Your task to perform on an android device: turn off notifications in google photos Image 0: 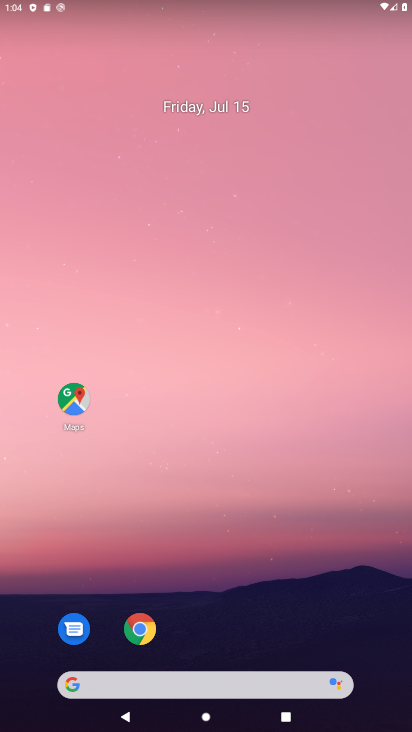
Step 0: drag from (218, 603) to (229, 127)
Your task to perform on an android device: turn off notifications in google photos Image 1: 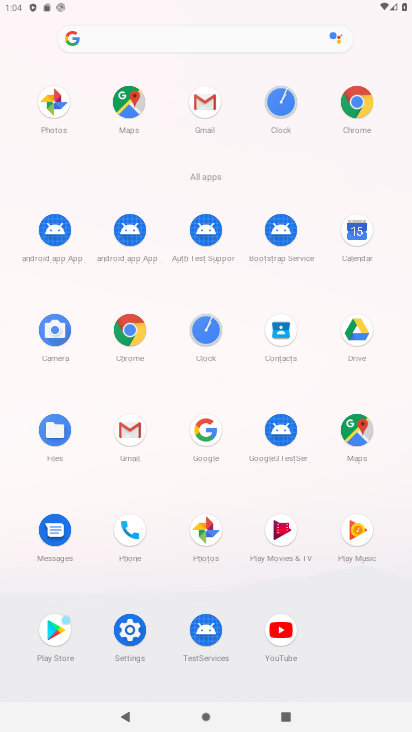
Step 1: click (201, 523)
Your task to perform on an android device: turn off notifications in google photos Image 2: 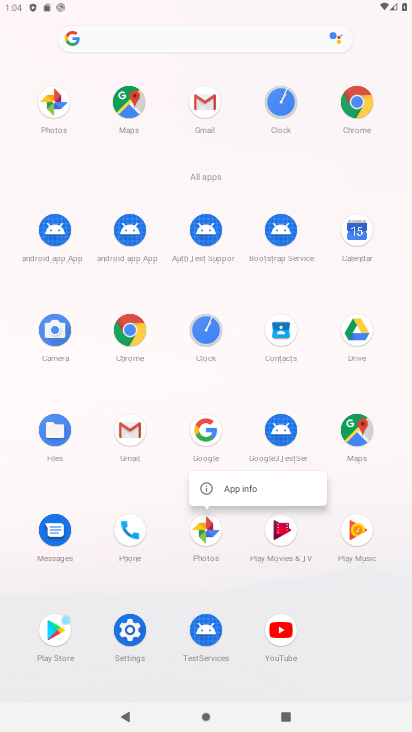
Step 2: click (210, 539)
Your task to perform on an android device: turn off notifications in google photos Image 3: 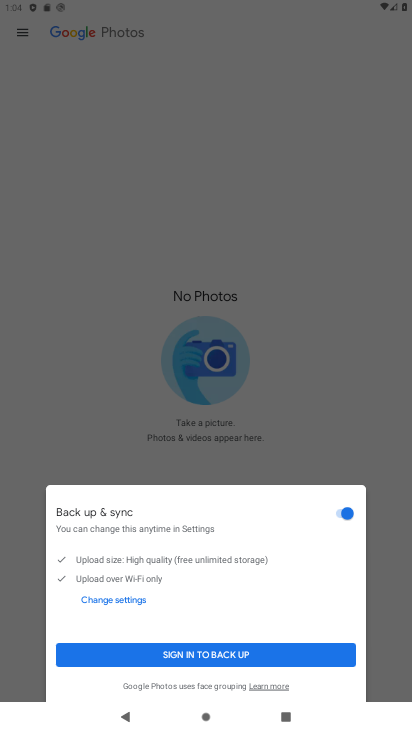
Step 3: click (205, 654)
Your task to perform on an android device: turn off notifications in google photos Image 4: 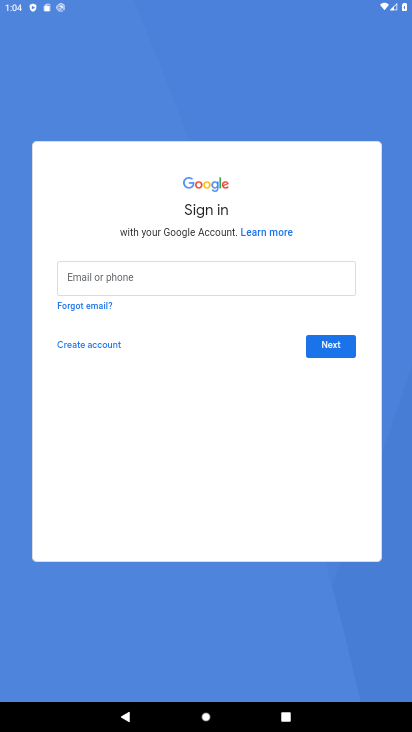
Step 4: click (316, 347)
Your task to perform on an android device: turn off notifications in google photos Image 5: 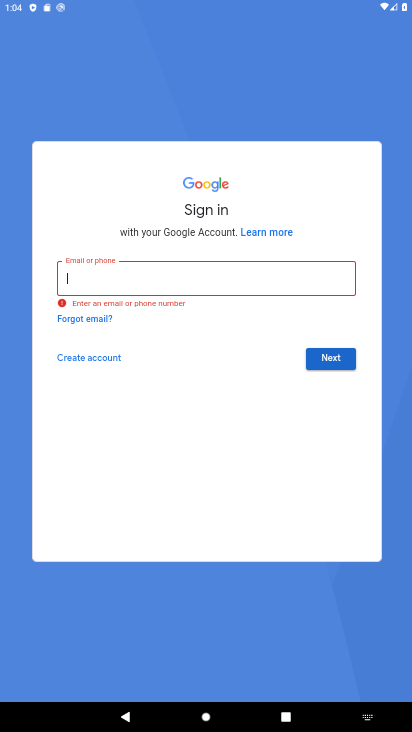
Step 5: press back button
Your task to perform on an android device: turn off notifications in google photos Image 6: 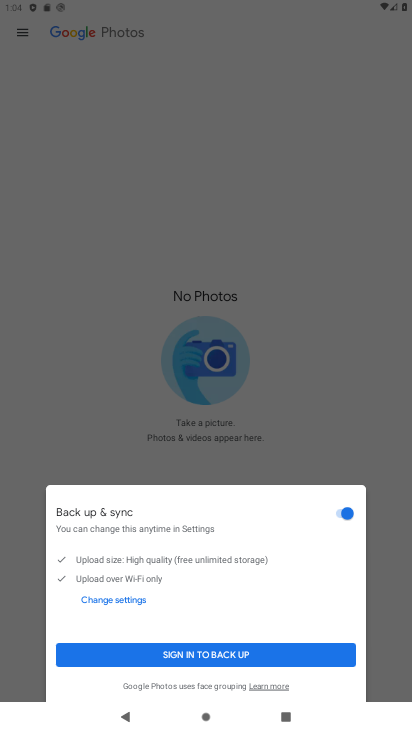
Step 6: click (330, 345)
Your task to perform on an android device: turn off notifications in google photos Image 7: 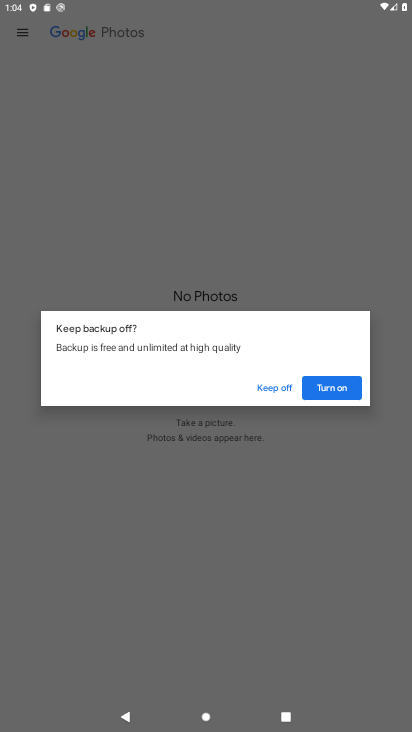
Step 7: click (266, 386)
Your task to perform on an android device: turn off notifications in google photos Image 8: 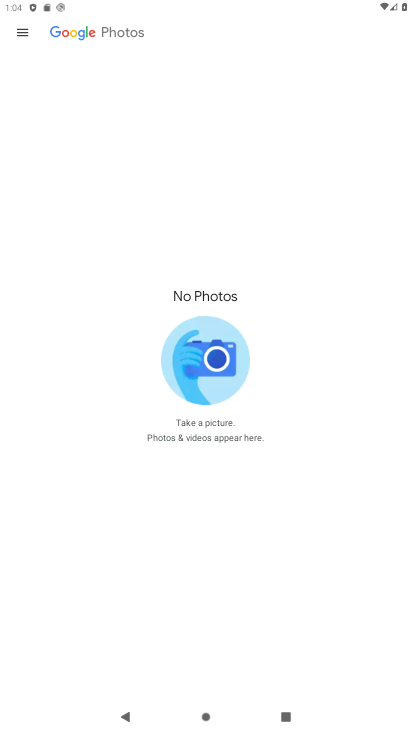
Step 8: click (19, 18)
Your task to perform on an android device: turn off notifications in google photos Image 9: 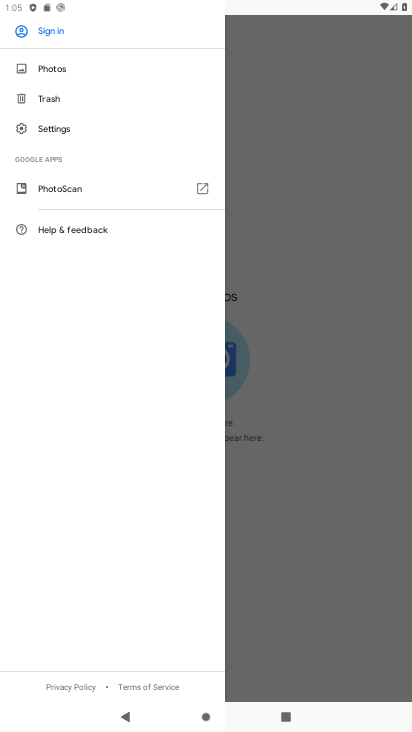
Step 9: click (51, 130)
Your task to perform on an android device: turn off notifications in google photos Image 10: 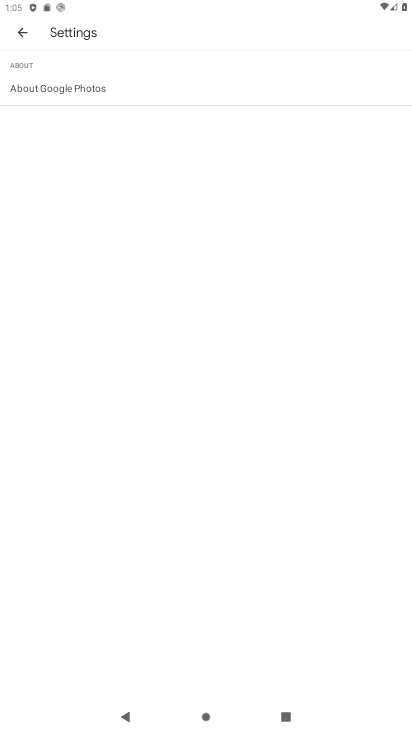
Step 10: click (27, 32)
Your task to perform on an android device: turn off notifications in google photos Image 11: 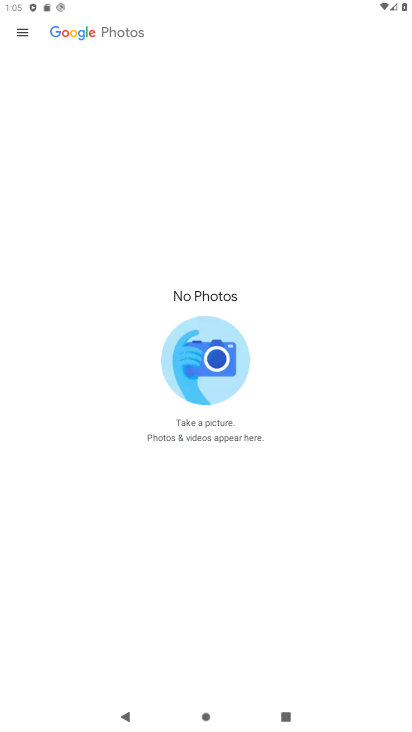
Step 11: click (14, 26)
Your task to perform on an android device: turn off notifications in google photos Image 12: 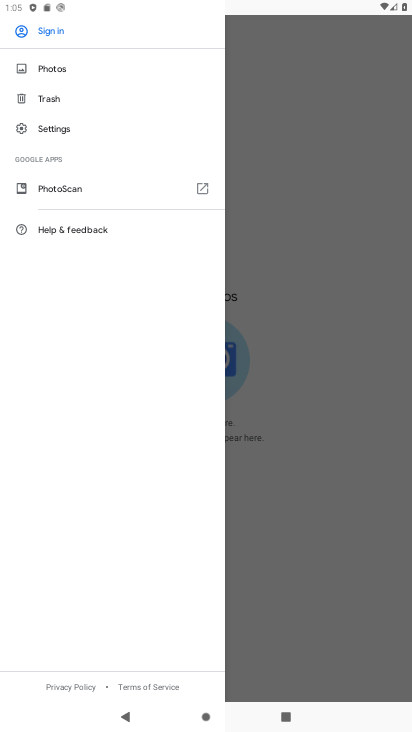
Step 12: click (63, 131)
Your task to perform on an android device: turn off notifications in google photos Image 13: 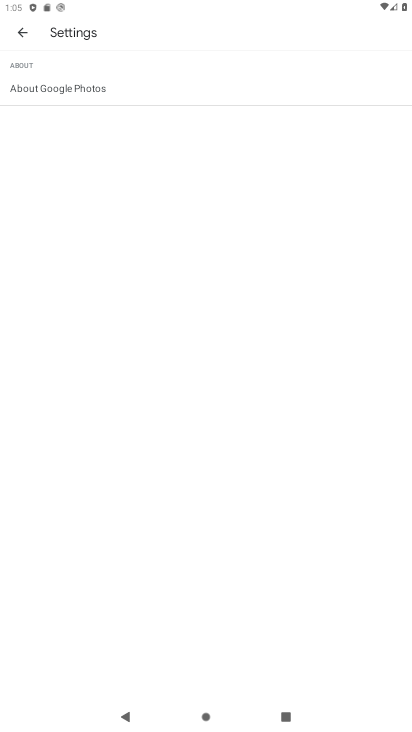
Step 13: task complete